Your task to perform on an android device: Go to sound settings Image 0: 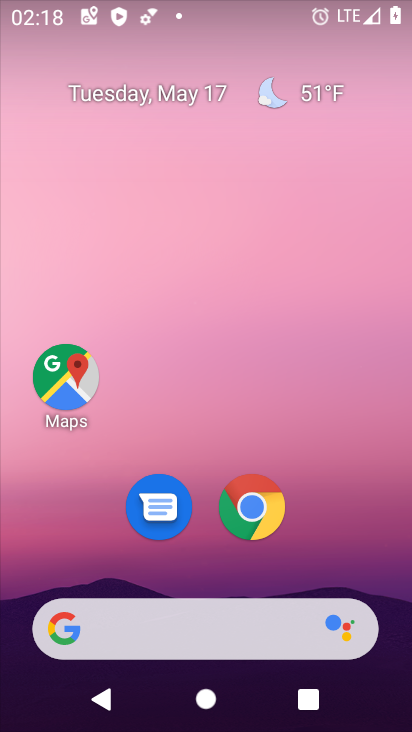
Step 0: drag from (200, 571) to (252, 48)
Your task to perform on an android device: Go to sound settings Image 1: 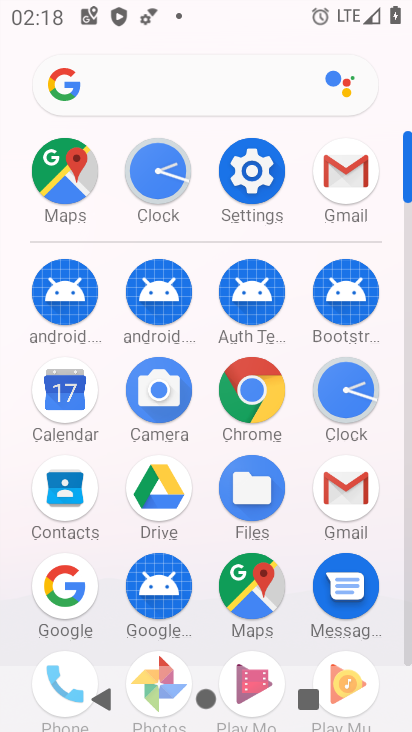
Step 1: click (250, 173)
Your task to perform on an android device: Go to sound settings Image 2: 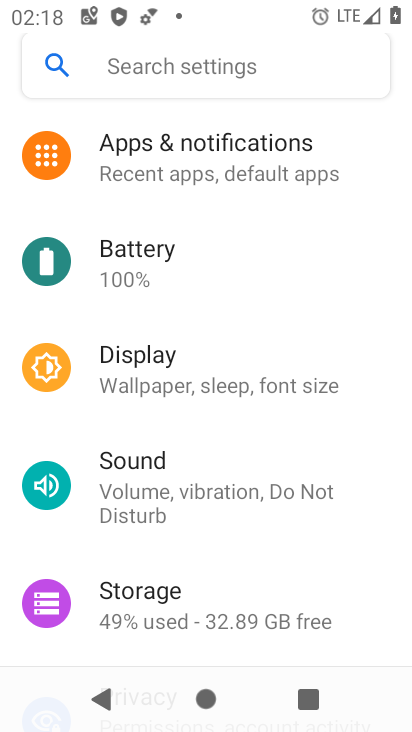
Step 2: click (198, 483)
Your task to perform on an android device: Go to sound settings Image 3: 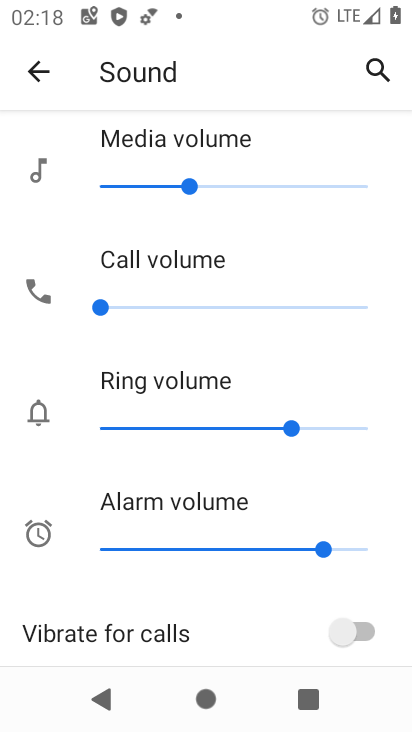
Step 3: task complete